Your task to perform on an android device: Open Maps and search for coffee Image 0: 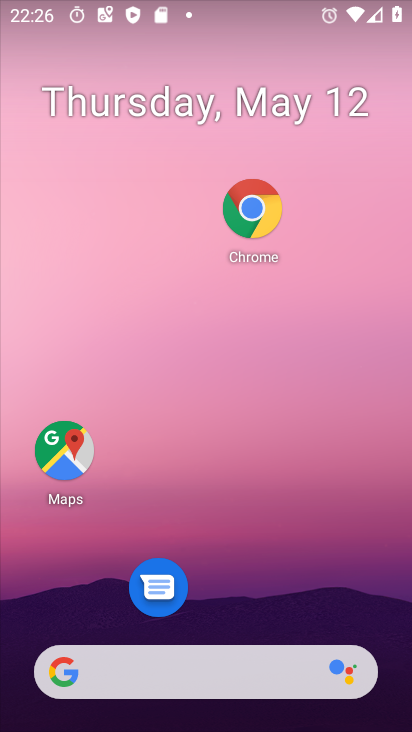
Step 0: drag from (288, 593) to (350, 231)
Your task to perform on an android device: Open Maps and search for coffee Image 1: 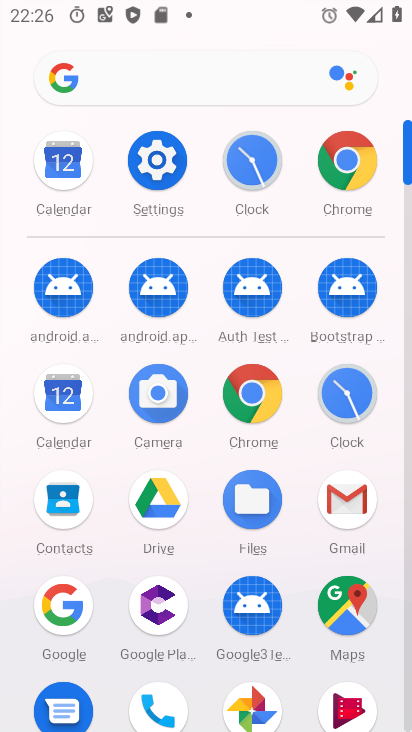
Step 1: click (358, 608)
Your task to perform on an android device: Open Maps and search for coffee Image 2: 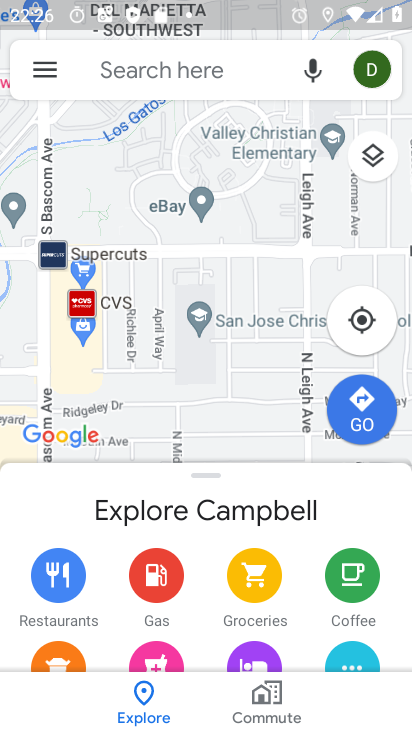
Step 2: click (161, 65)
Your task to perform on an android device: Open Maps and search for coffee Image 3: 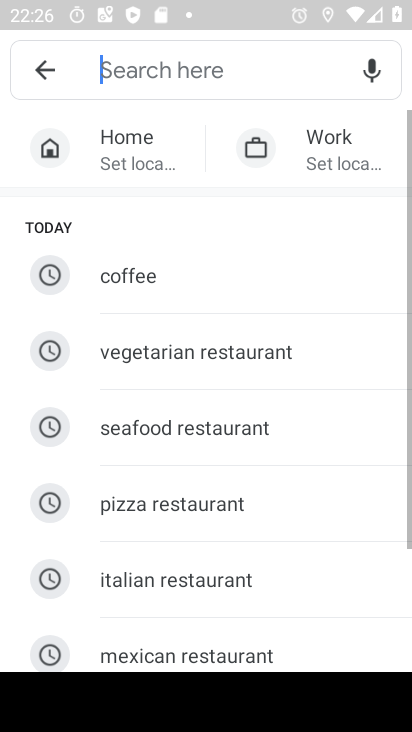
Step 3: click (149, 282)
Your task to perform on an android device: Open Maps and search for coffee Image 4: 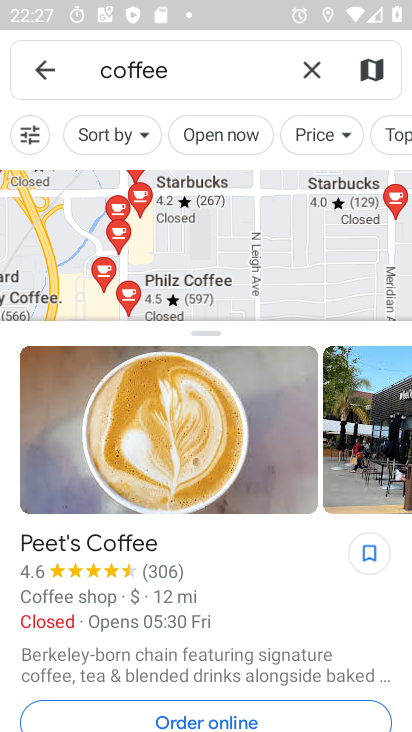
Step 4: task complete